Your task to perform on an android device: toggle wifi Image 0: 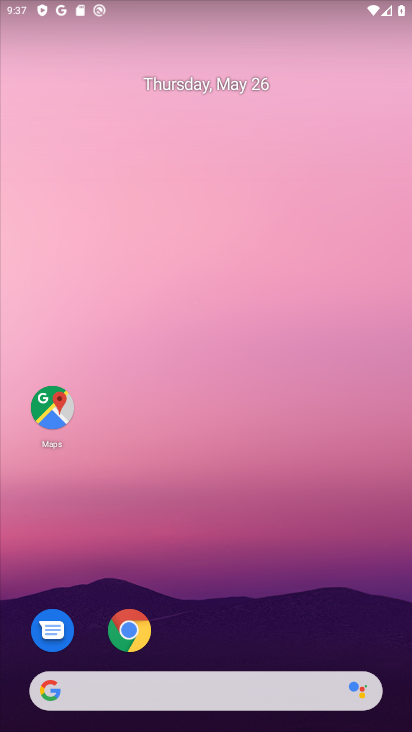
Step 0: click (195, 672)
Your task to perform on an android device: toggle wifi Image 1: 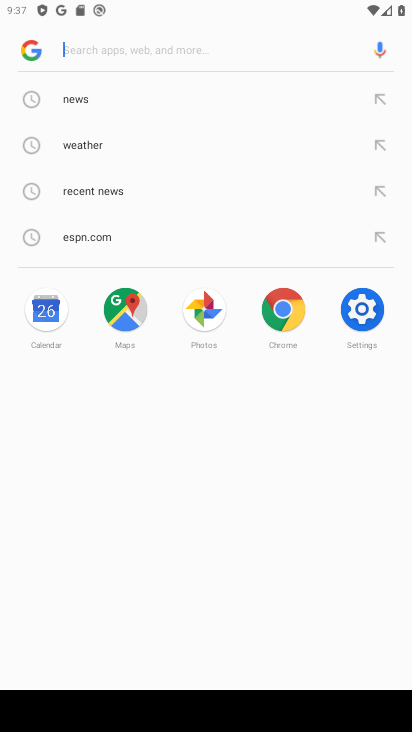
Step 1: press home button
Your task to perform on an android device: toggle wifi Image 2: 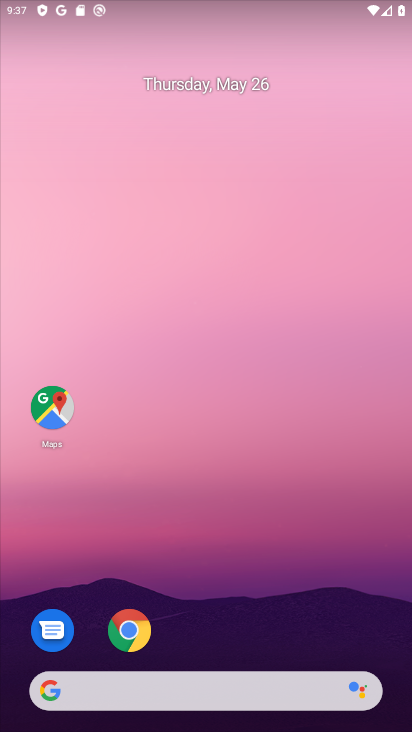
Step 2: drag from (252, 658) to (196, 61)
Your task to perform on an android device: toggle wifi Image 3: 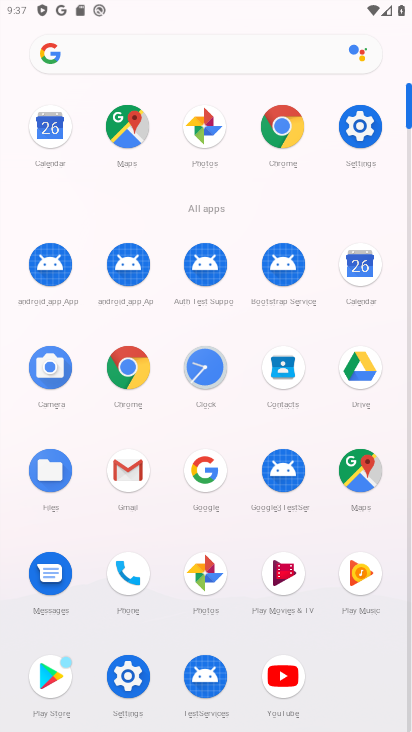
Step 3: click (372, 139)
Your task to perform on an android device: toggle wifi Image 4: 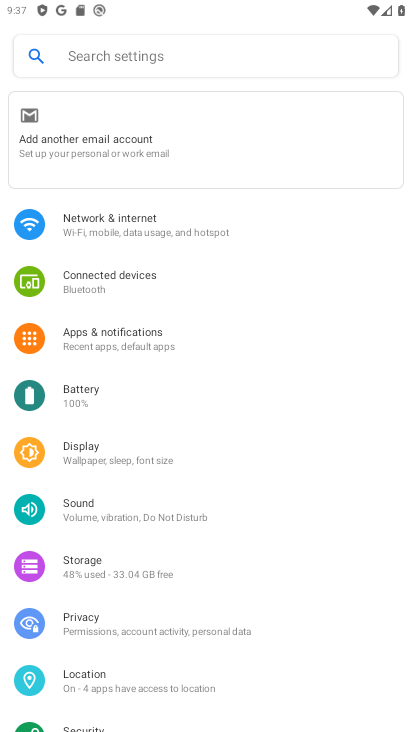
Step 4: click (164, 211)
Your task to perform on an android device: toggle wifi Image 5: 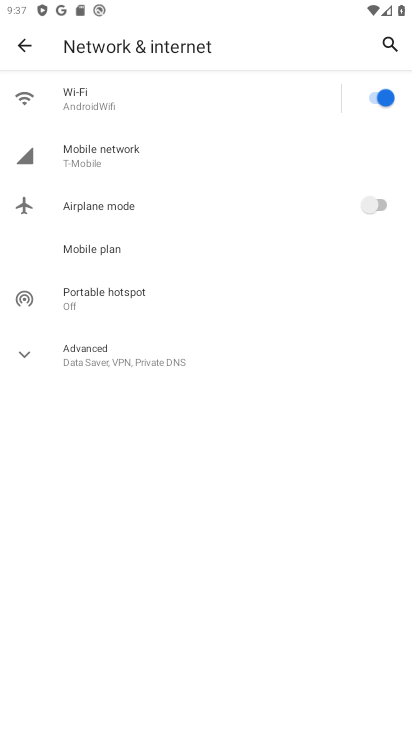
Step 5: click (378, 100)
Your task to perform on an android device: toggle wifi Image 6: 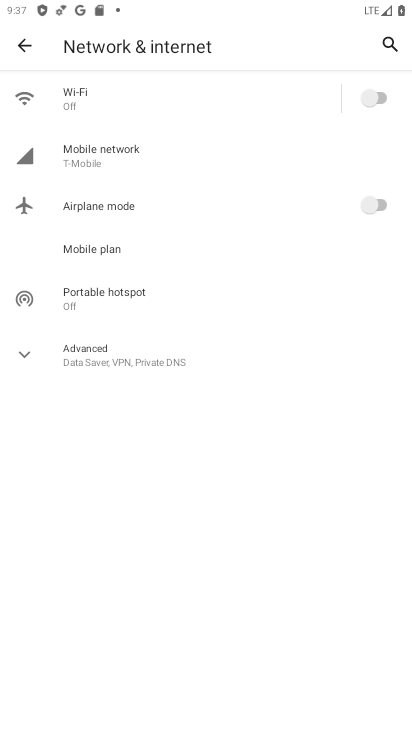
Step 6: task complete